Your task to perform on an android device: manage bookmarks in the chrome app Image 0: 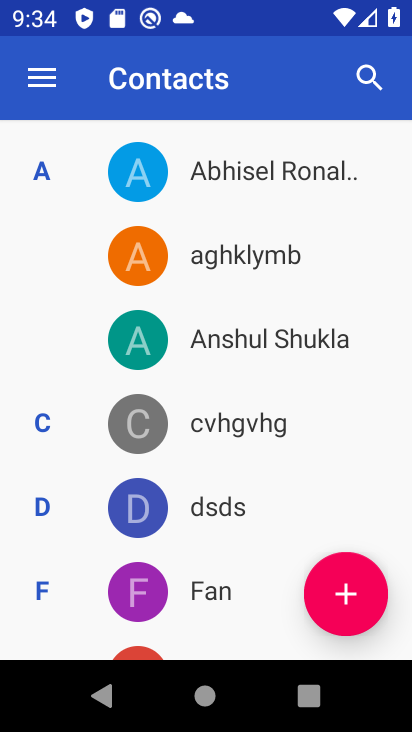
Step 0: press home button
Your task to perform on an android device: manage bookmarks in the chrome app Image 1: 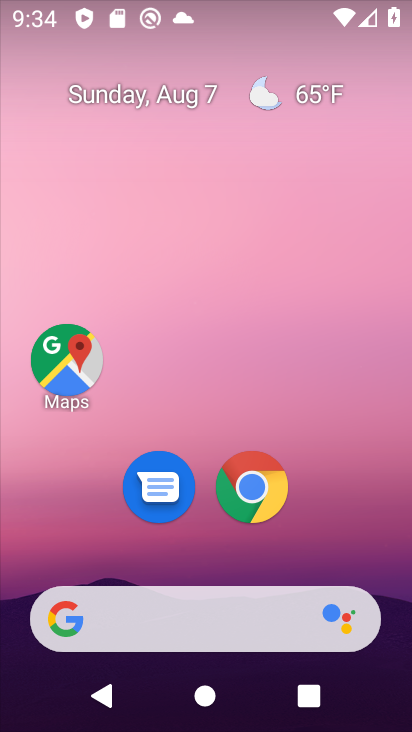
Step 1: click (253, 485)
Your task to perform on an android device: manage bookmarks in the chrome app Image 2: 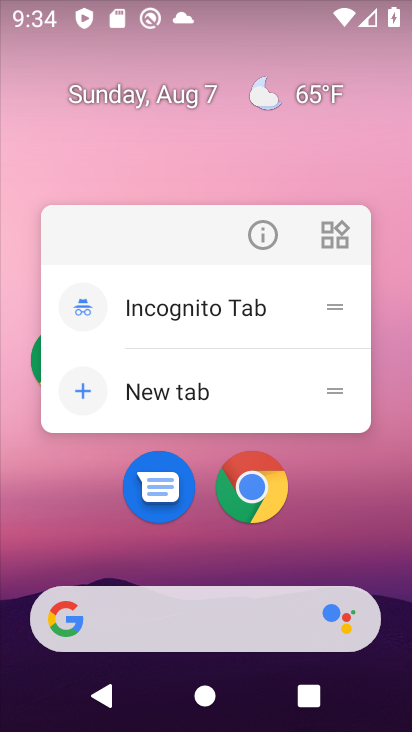
Step 2: click (253, 488)
Your task to perform on an android device: manage bookmarks in the chrome app Image 3: 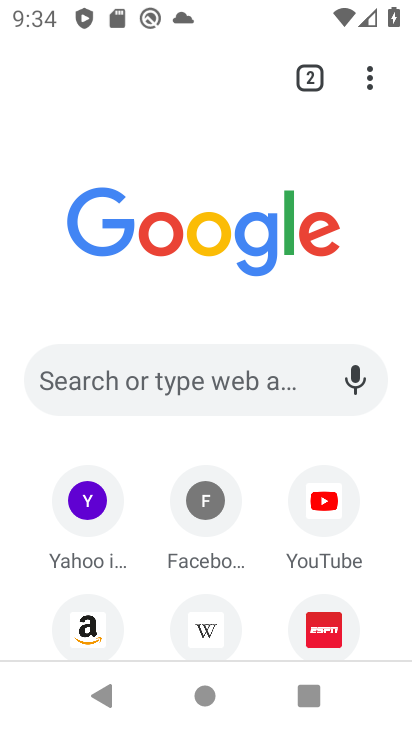
Step 3: click (369, 74)
Your task to perform on an android device: manage bookmarks in the chrome app Image 4: 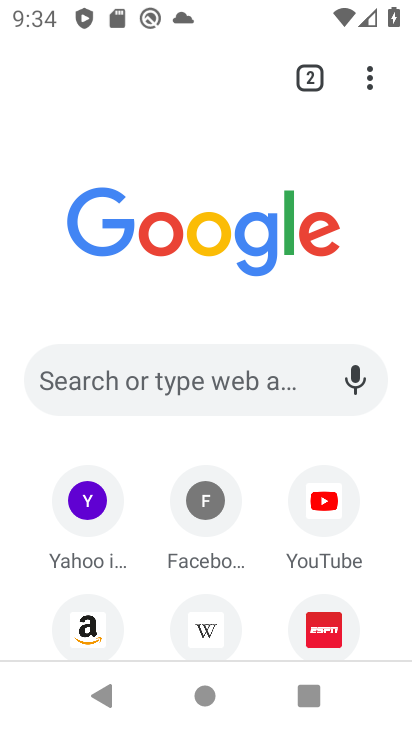
Step 4: click (369, 75)
Your task to perform on an android device: manage bookmarks in the chrome app Image 5: 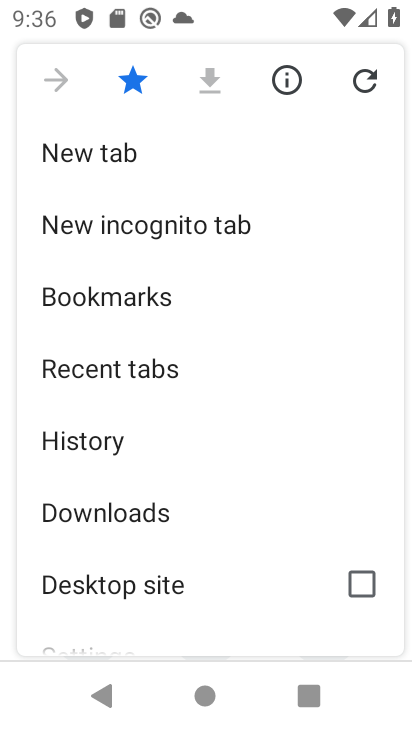
Step 5: click (133, 288)
Your task to perform on an android device: manage bookmarks in the chrome app Image 6: 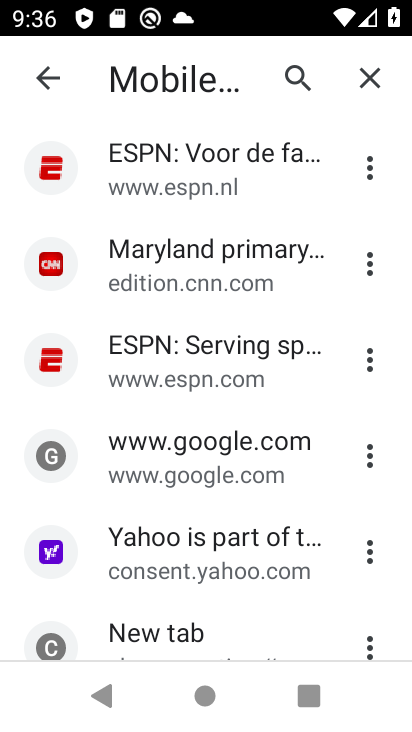
Step 6: click (371, 365)
Your task to perform on an android device: manage bookmarks in the chrome app Image 7: 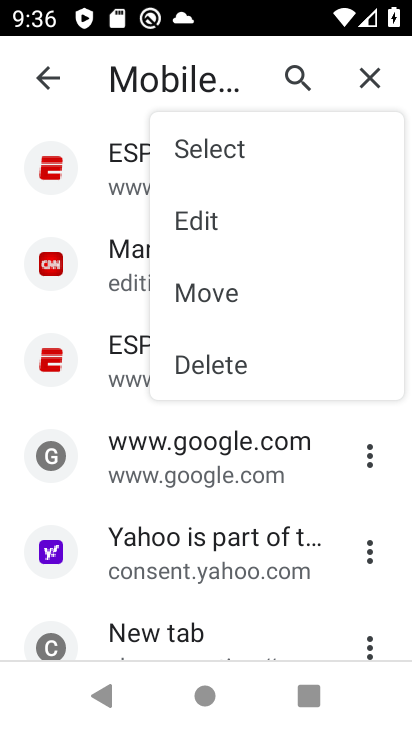
Step 7: click (206, 365)
Your task to perform on an android device: manage bookmarks in the chrome app Image 8: 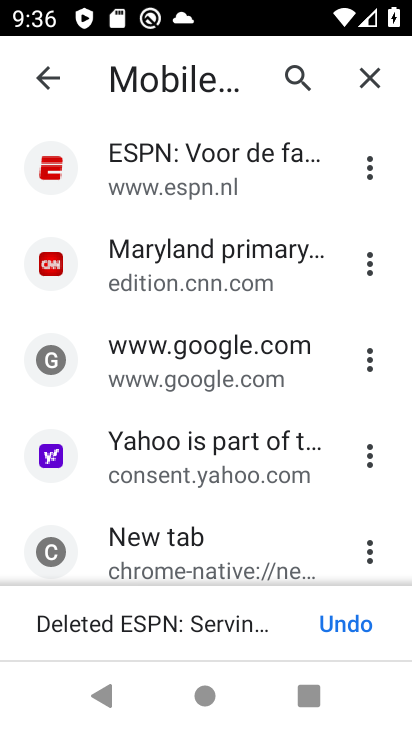
Step 8: task complete